Your task to perform on an android device: check battery use Image 0: 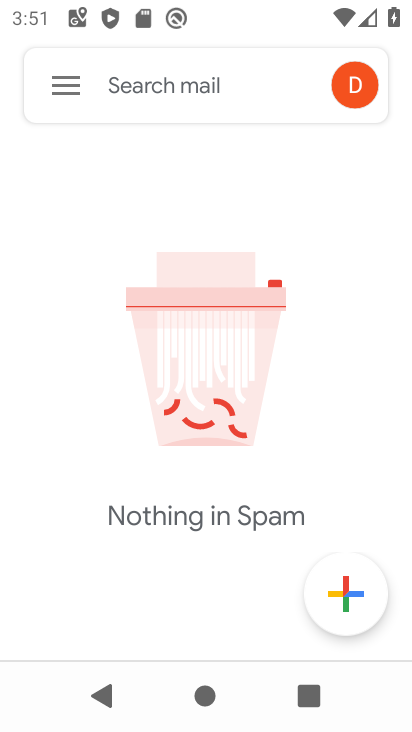
Step 0: press back button
Your task to perform on an android device: check battery use Image 1: 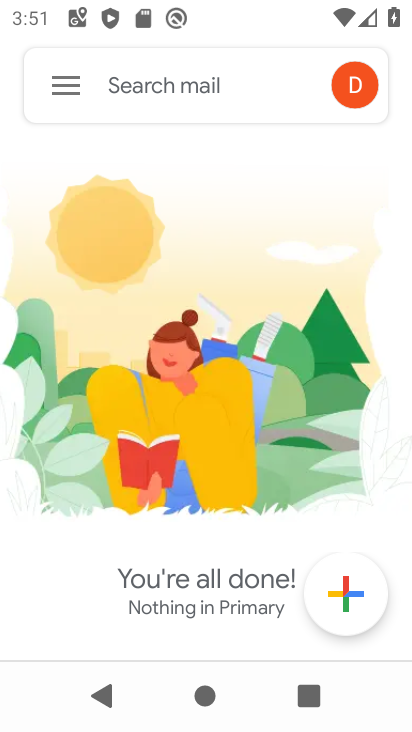
Step 1: press home button
Your task to perform on an android device: check battery use Image 2: 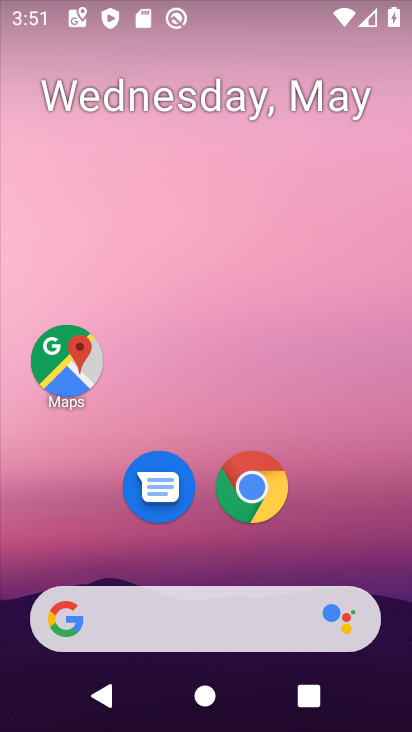
Step 2: drag from (356, 536) to (278, 44)
Your task to perform on an android device: check battery use Image 3: 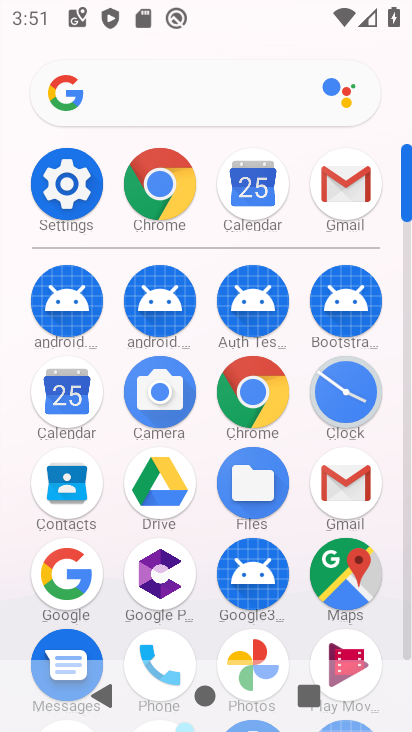
Step 3: drag from (11, 535) to (29, 194)
Your task to perform on an android device: check battery use Image 4: 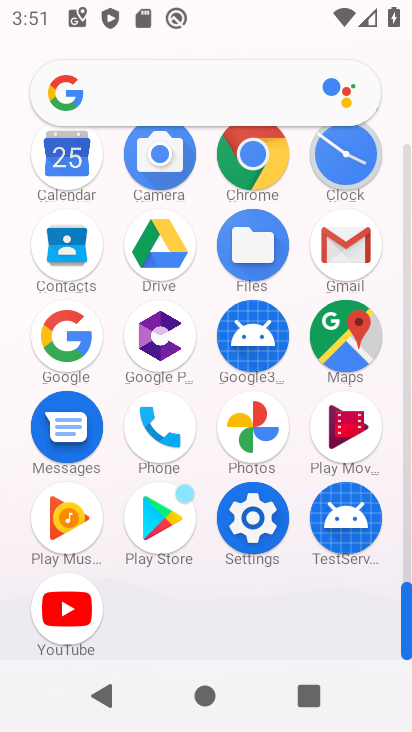
Step 4: click (250, 512)
Your task to perform on an android device: check battery use Image 5: 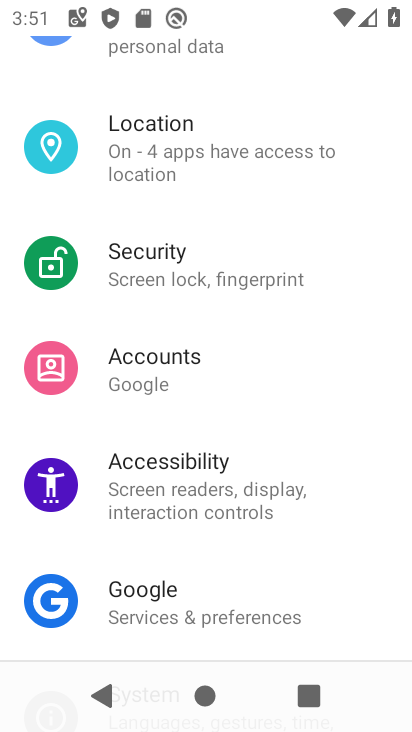
Step 5: drag from (285, 583) to (314, 155)
Your task to perform on an android device: check battery use Image 6: 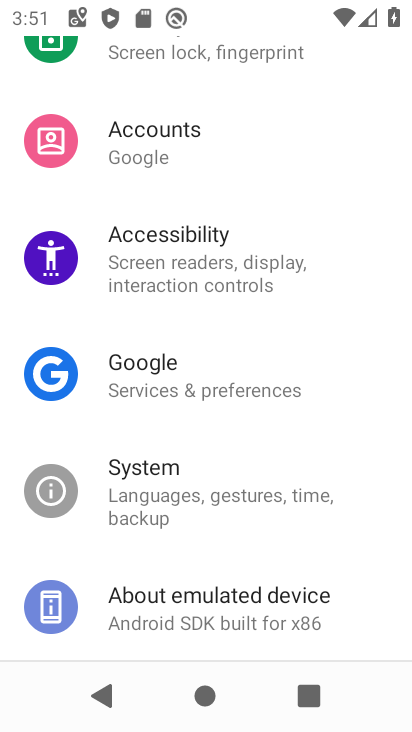
Step 6: drag from (297, 131) to (292, 535)
Your task to perform on an android device: check battery use Image 7: 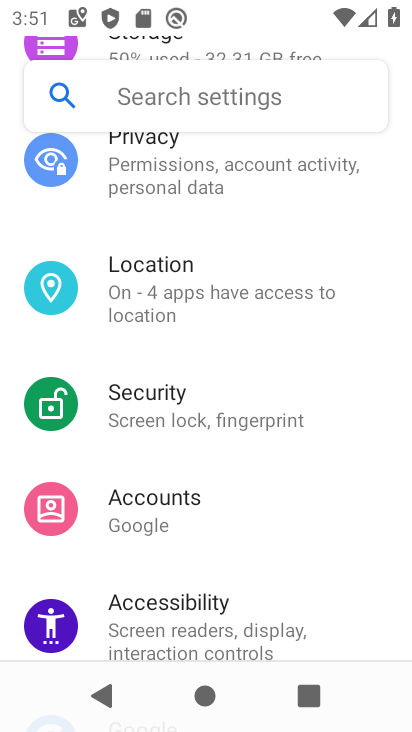
Step 7: drag from (274, 199) to (306, 550)
Your task to perform on an android device: check battery use Image 8: 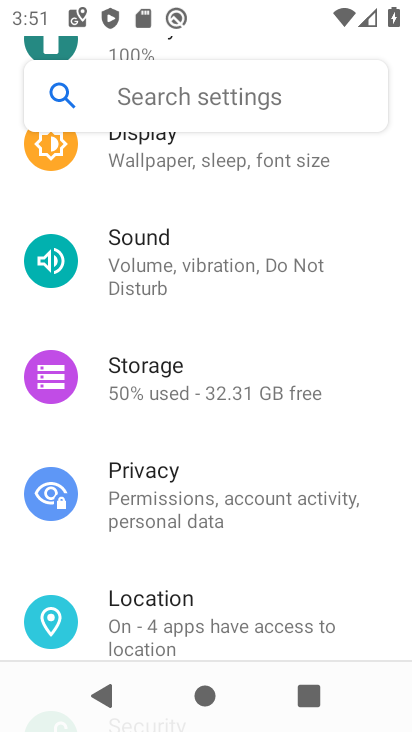
Step 8: drag from (332, 258) to (308, 604)
Your task to perform on an android device: check battery use Image 9: 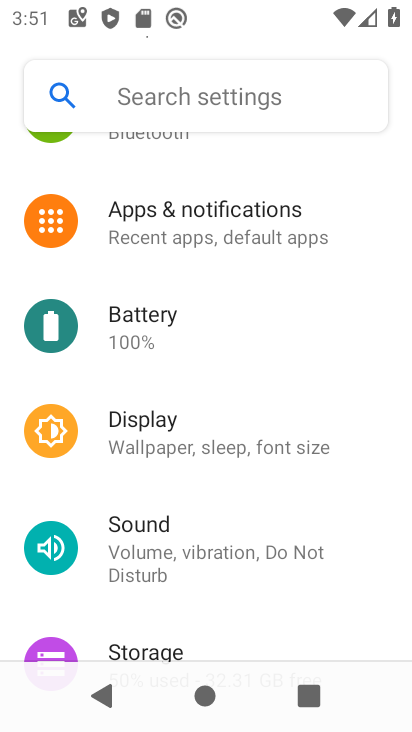
Step 9: click (186, 327)
Your task to perform on an android device: check battery use Image 10: 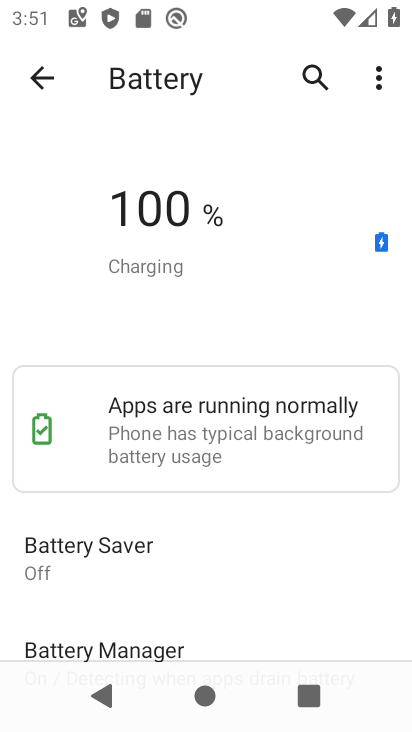
Step 10: task complete